Your task to perform on an android device: turn pop-ups on in chrome Image 0: 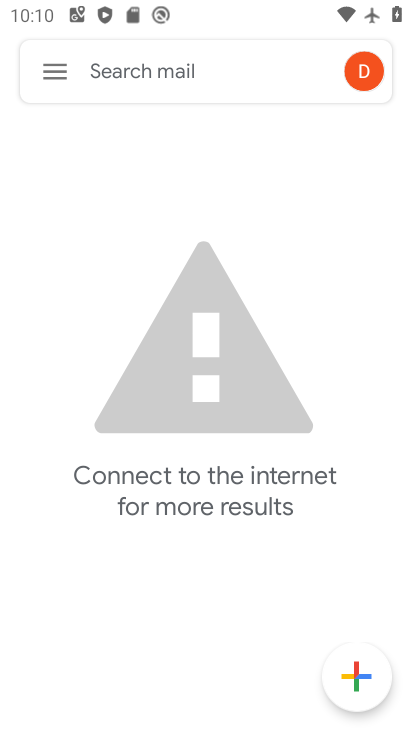
Step 0: press back button
Your task to perform on an android device: turn pop-ups on in chrome Image 1: 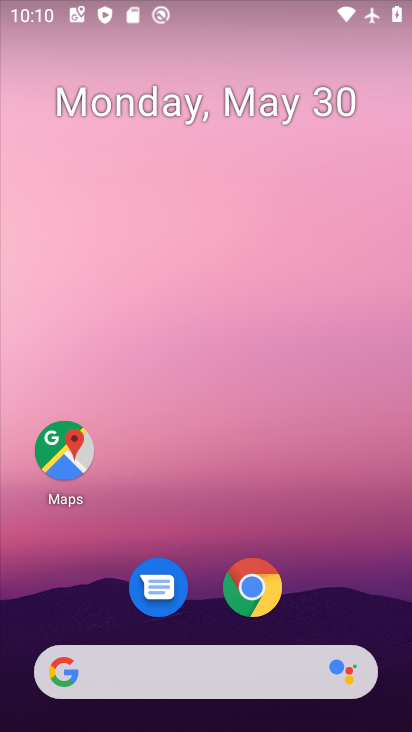
Step 1: drag from (344, 606) to (280, 28)
Your task to perform on an android device: turn pop-ups on in chrome Image 2: 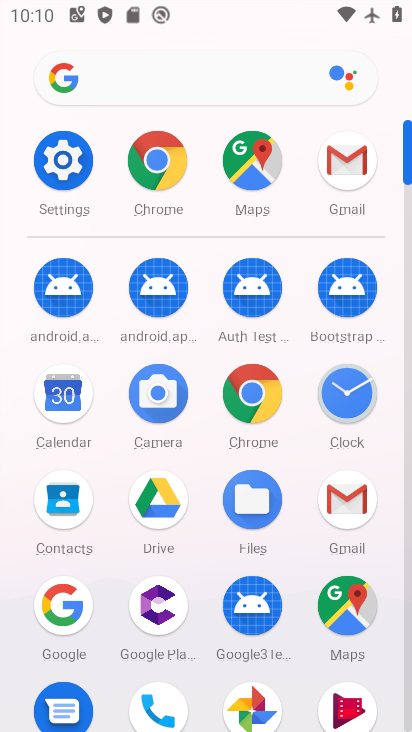
Step 2: drag from (16, 489) to (15, 196)
Your task to perform on an android device: turn pop-ups on in chrome Image 3: 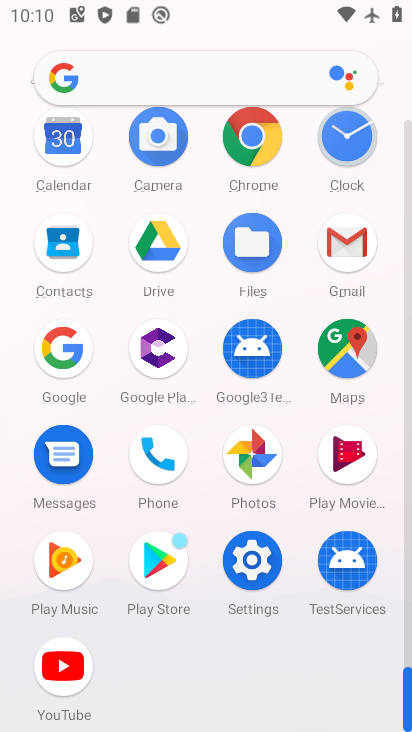
Step 3: click (253, 130)
Your task to perform on an android device: turn pop-ups on in chrome Image 4: 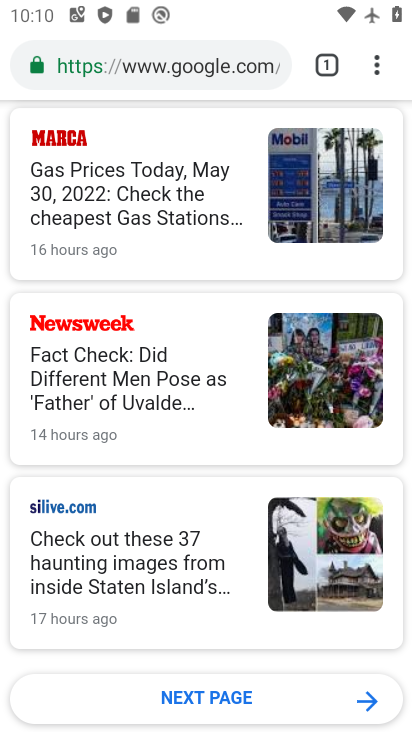
Step 4: drag from (377, 62) to (141, 631)
Your task to perform on an android device: turn pop-ups on in chrome Image 5: 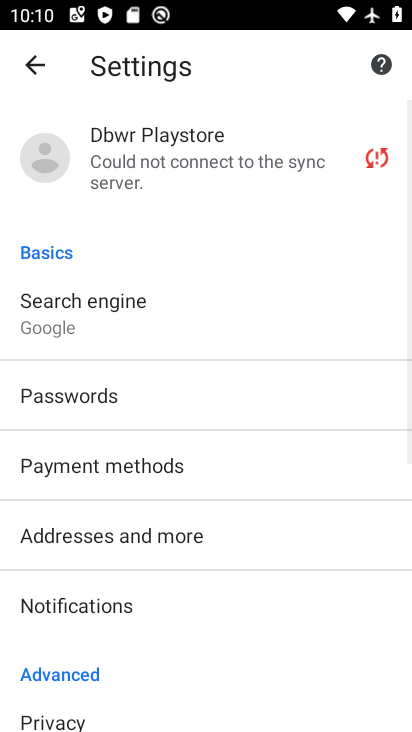
Step 5: drag from (306, 584) to (280, 196)
Your task to perform on an android device: turn pop-ups on in chrome Image 6: 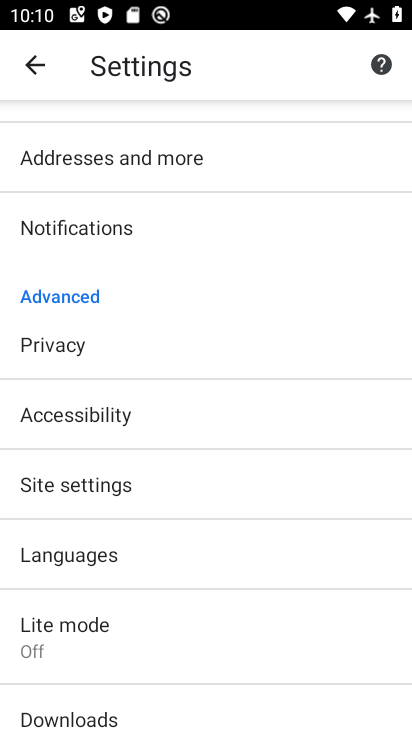
Step 6: click (114, 487)
Your task to perform on an android device: turn pop-ups on in chrome Image 7: 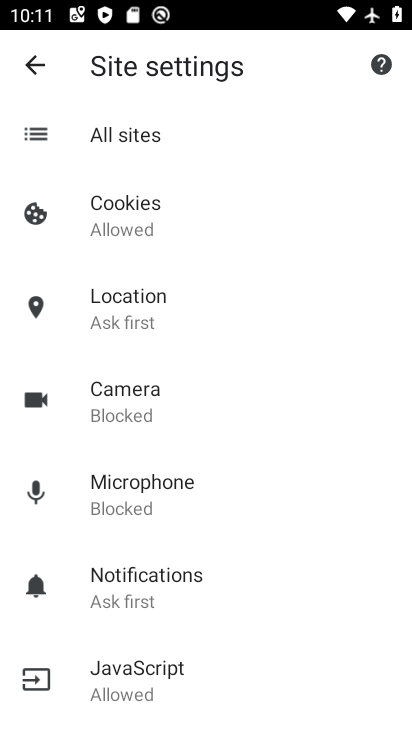
Step 7: drag from (229, 585) to (199, 184)
Your task to perform on an android device: turn pop-ups on in chrome Image 8: 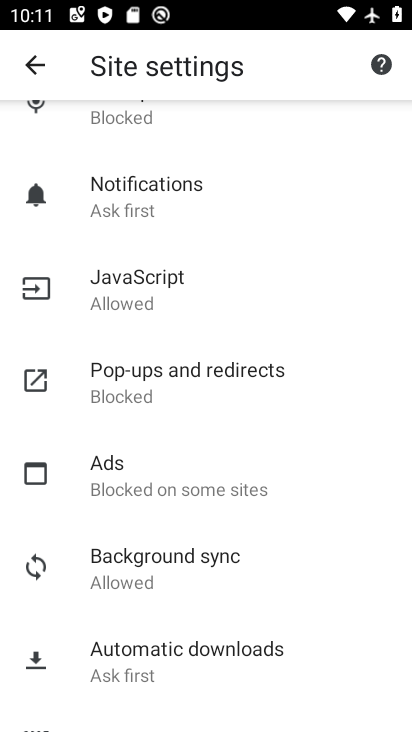
Step 8: click (126, 377)
Your task to perform on an android device: turn pop-ups on in chrome Image 9: 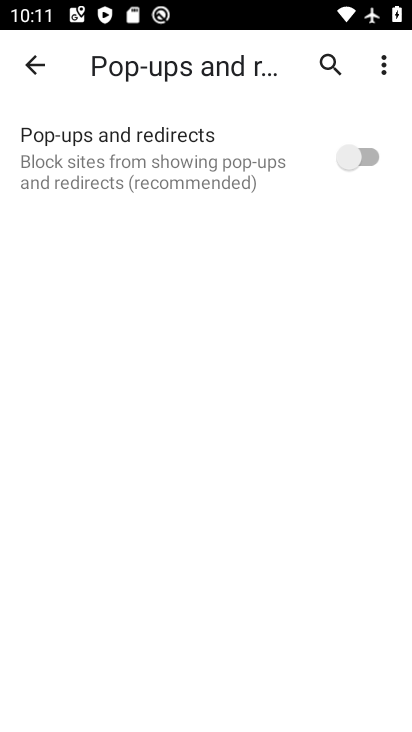
Step 9: click (369, 149)
Your task to perform on an android device: turn pop-ups on in chrome Image 10: 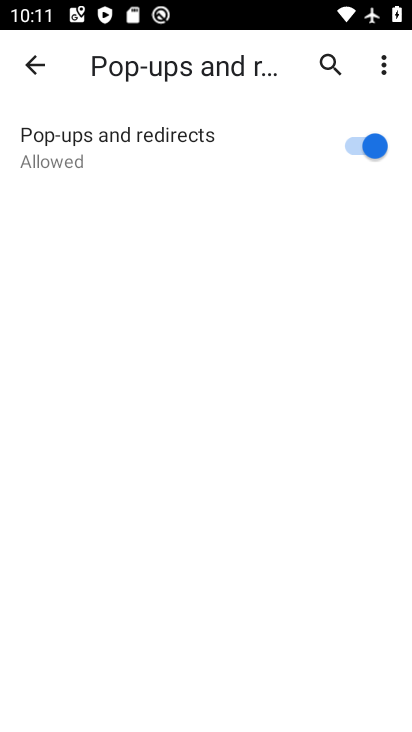
Step 10: task complete